Your task to perform on an android device: Open notification settings Image 0: 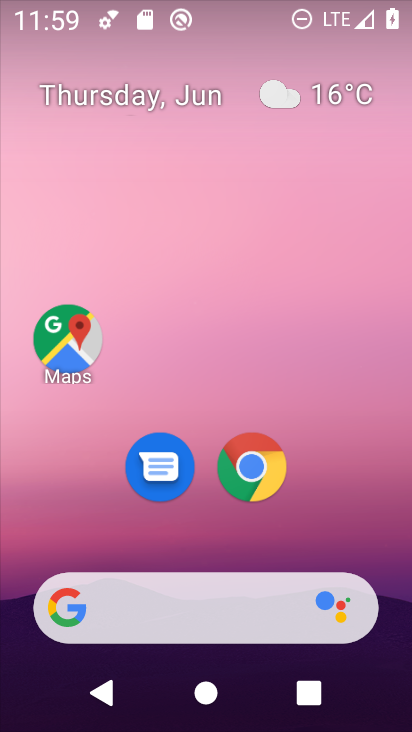
Step 0: drag from (399, 622) to (322, 129)
Your task to perform on an android device: Open notification settings Image 1: 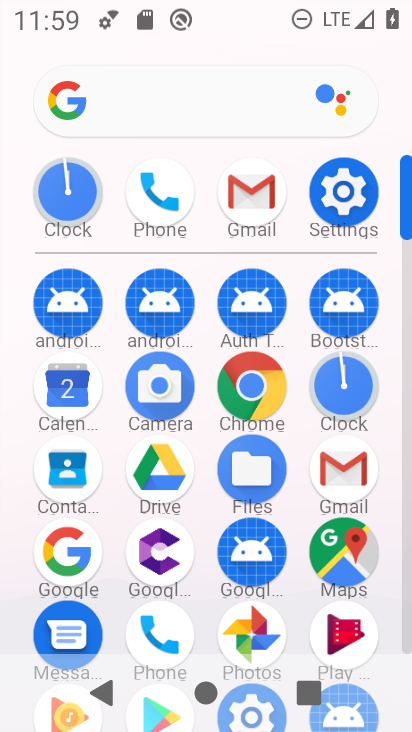
Step 1: click (406, 626)
Your task to perform on an android device: Open notification settings Image 2: 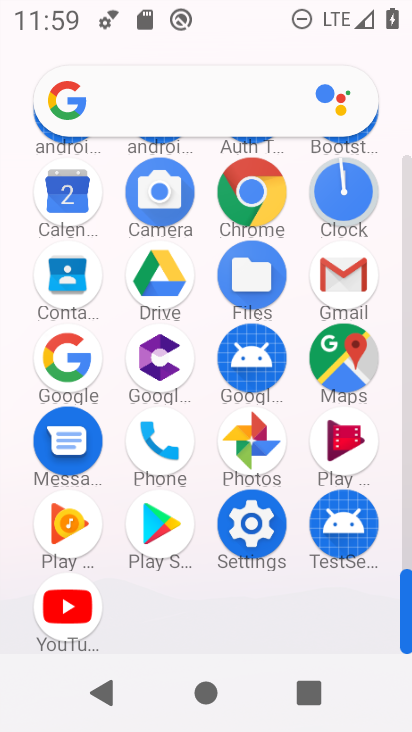
Step 2: click (253, 523)
Your task to perform on an android device: Open notification settings Image 3: 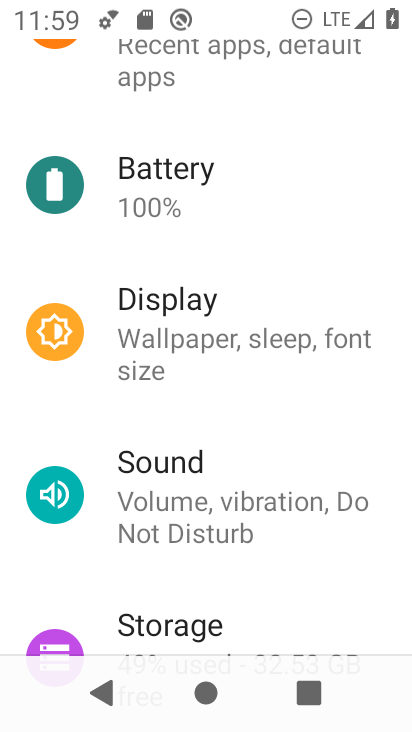
Step 3: drag from (330, 230) to (366, 473)
Your task to perform on an android device: Open notification settings Image 4: 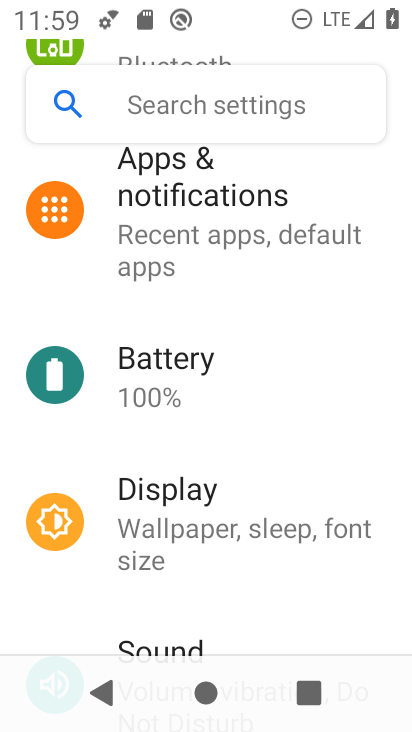
Step 4: click (194, 192)
Your task to perform on an android device: Open notification settings Image 5: 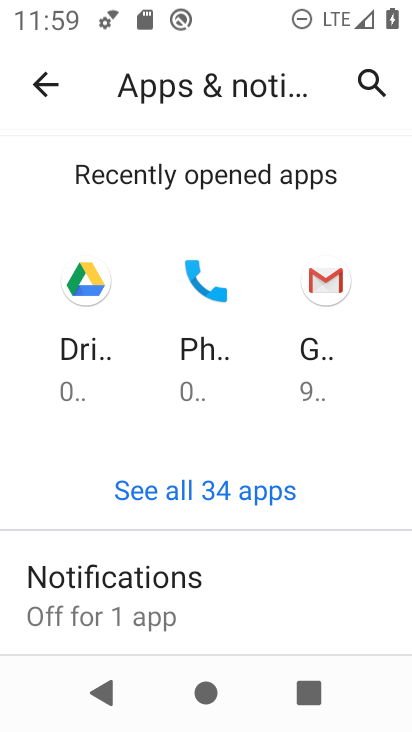
Step 5: drag from (142, 608) to (117, 195)
Your task to perform on an android device: Open notification settings Image 6: 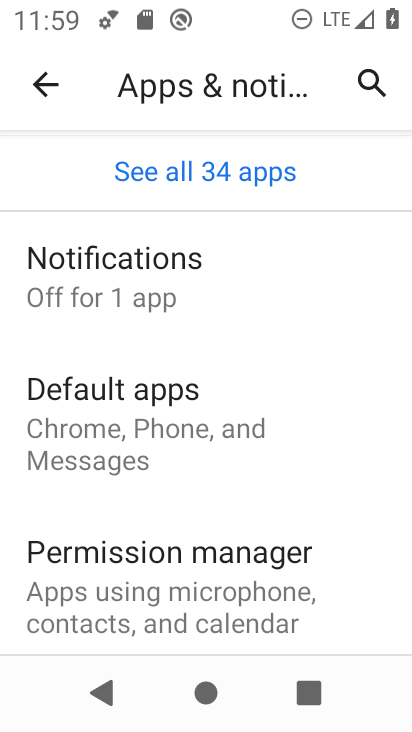
Step 6: click (100, 263)
Your task to perform on an android device: Open notification settings Image 7: 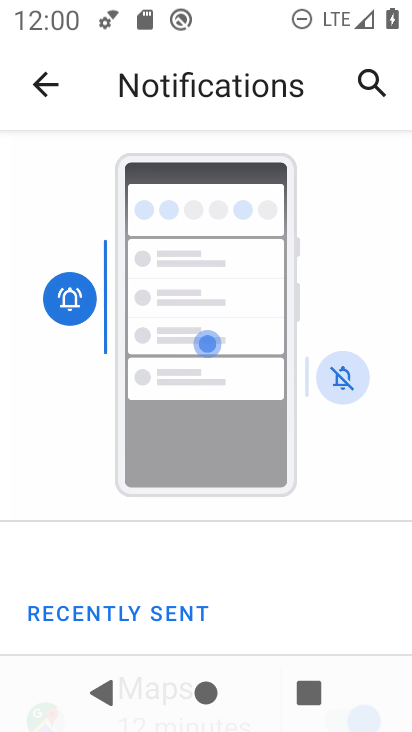
Step 7: drag from (276, 603) to (186, 176)
Your task to perform on an android device: Open notification settings Image 8: 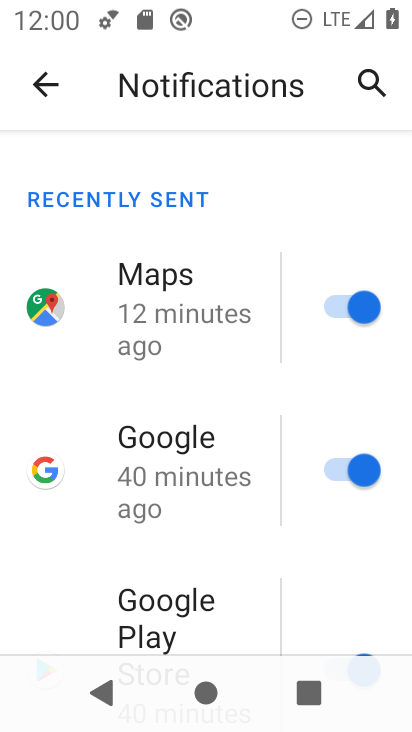
Step 8: drag from (280, 653) to (235, 192)
Your task to perform on an android device: Open notification settings Image 9: 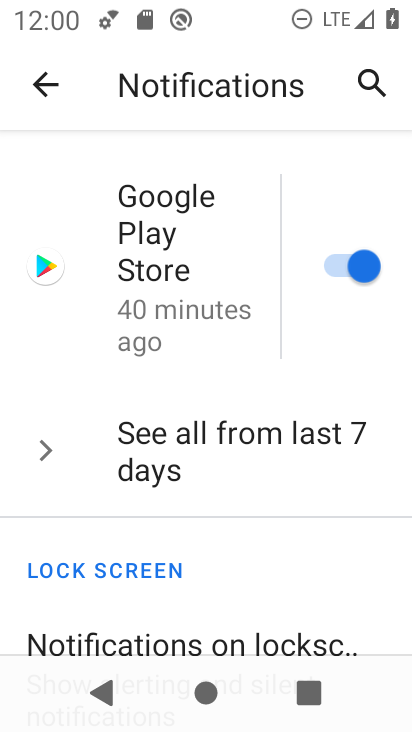
Step 9: drag from (261, 558) to (207, 156)
Your task to perform on an android device: Open notification settings Image 10: 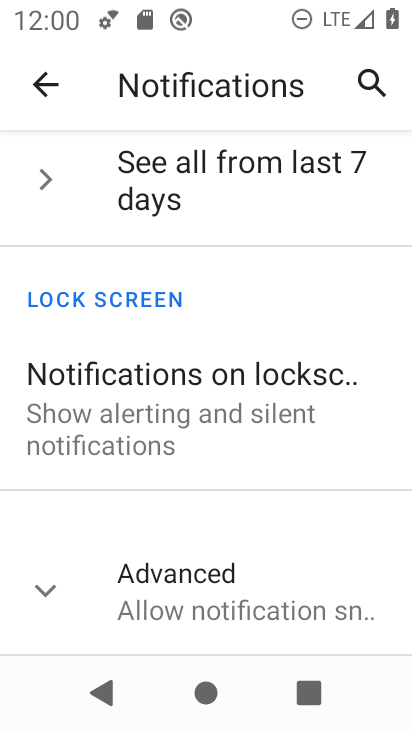
Step 10: click (44, 591)
Your task to perform on an android device: Open notification settings Image 11: 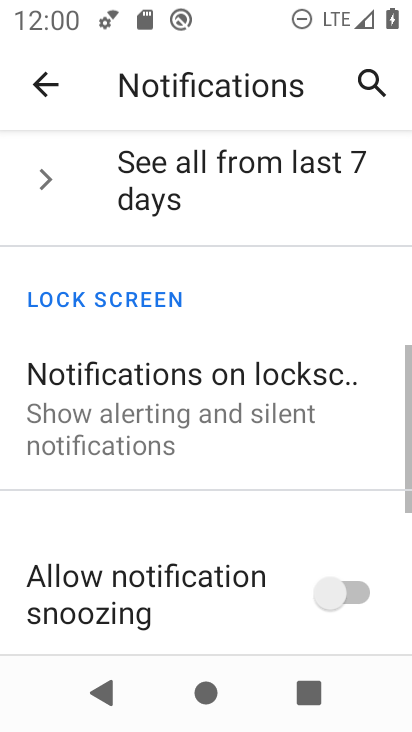
Step 11: task complete